Your task to perform on an android device: Open Google Image 0: 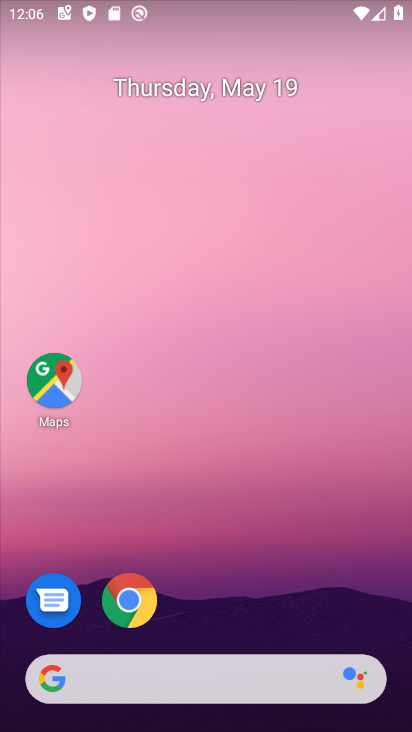
Step 0: drag from (290, 575) to (236, 45)
Your task to perform on an android device: Open Google Image 1: 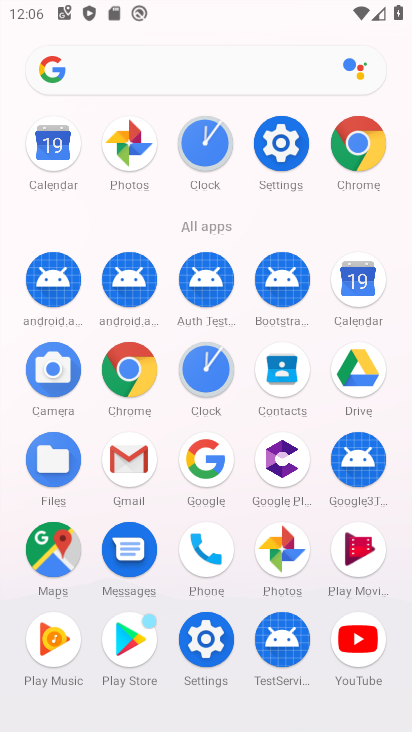
Step 1: click (199, 461)
Your task to perform on an android device: Open Google Image 2: 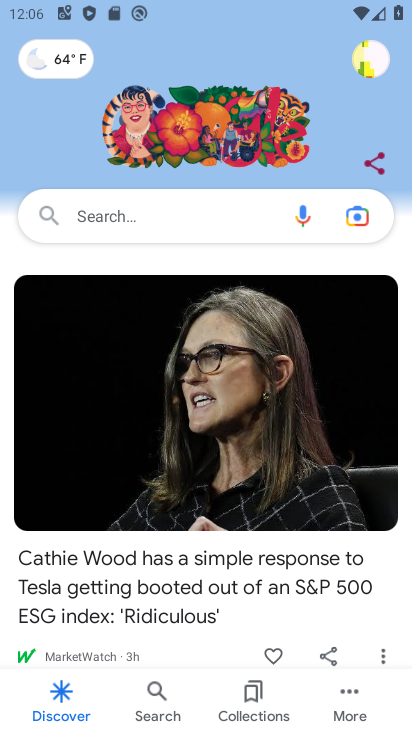
Step 2: task complete